Your task to perform on an android device: Do I have any events this weekend? Image 0: 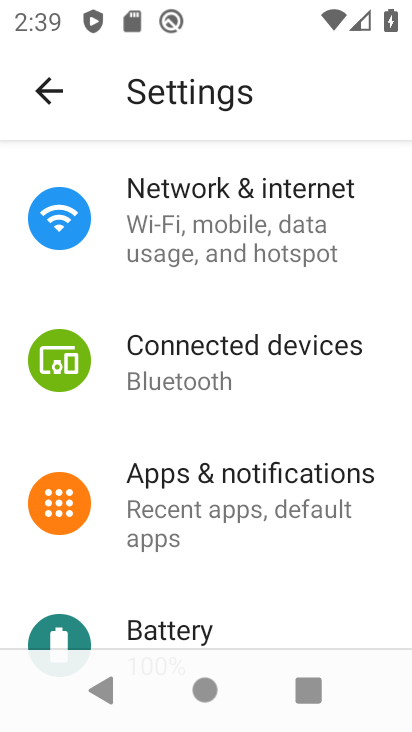
Step 0: press home button
Your task to perform on an android device: Do I have any events this weekend? Image 1: 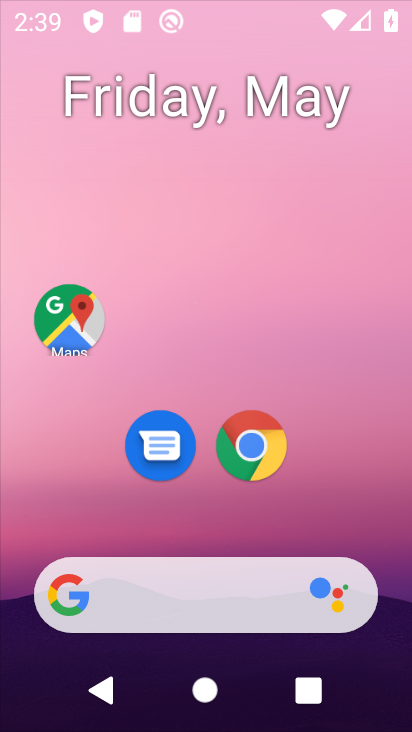
Step 1: drag from (230, 537) to (198, 225)
Your task to perform on an android device: Do I have any events this weekend? Image 2: 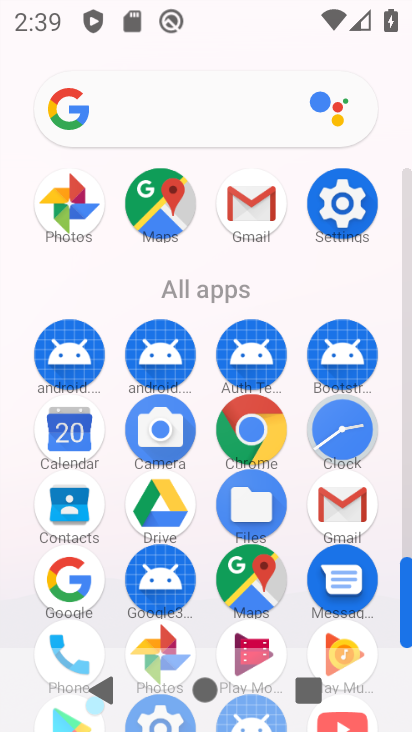
Step 2: drag from (184, 505) to (184, 136)
Your task to perform on an android device: Do I have any events this weekend? Image 3: 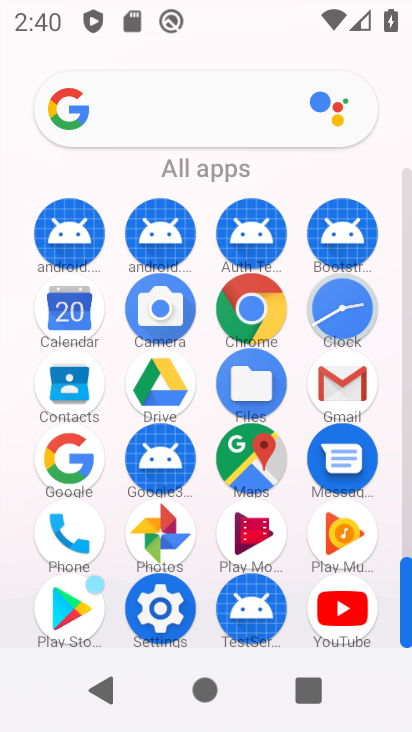
Step 3: drag from (212, 510) to (246, 155)
Your task to perform on an android device: Do I have any events this weekend? Image 4: 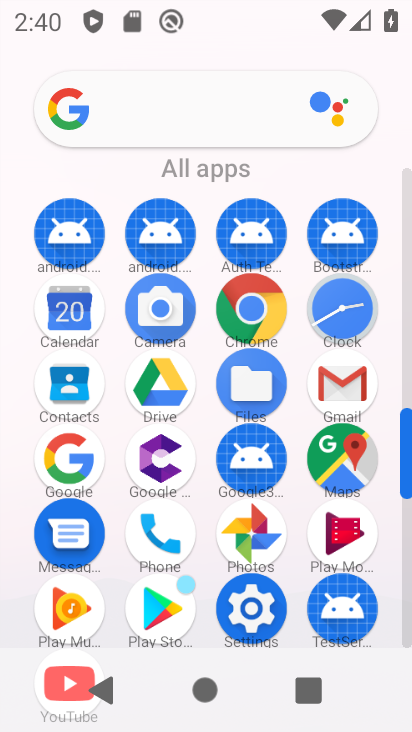
Step 4: click (62, 334)
Your task to perform on an android device: Do I have any events this weekend? Image 5: 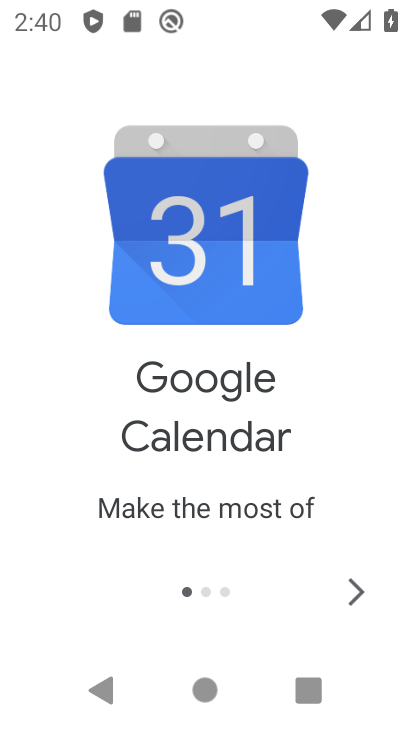
Step 5: click (362, 593)
Your task to perform on an android device: Do I have any events this weekend? Image 6: 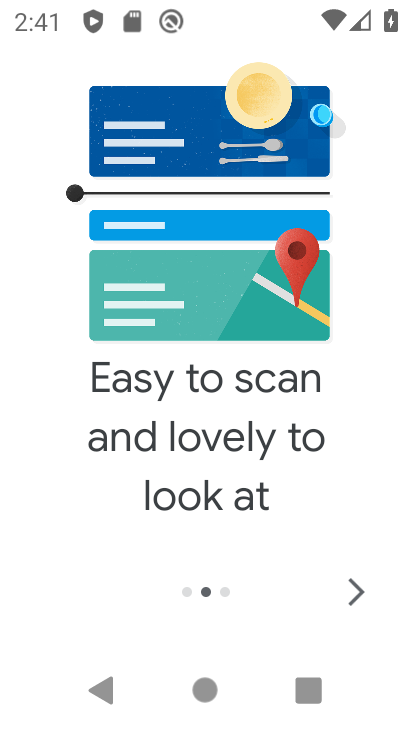
Step 6: click (362, 593)
Your task to perform on an android device: Do I have any events this weekend? Image 7: 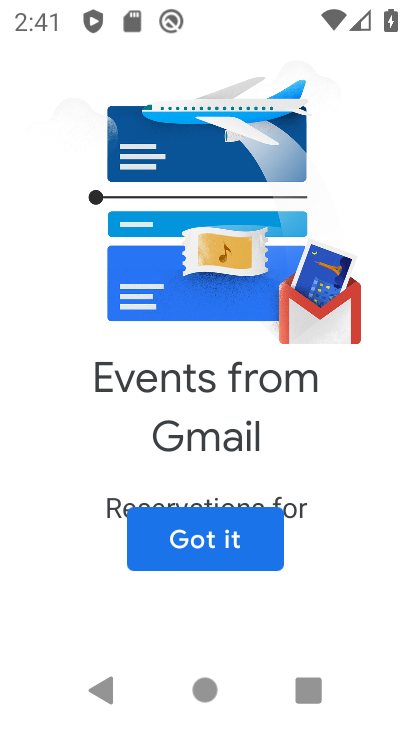
Step 7: click (260, 560)
Your task to perform on an android device: Do I have any events this weekend? Image 8: 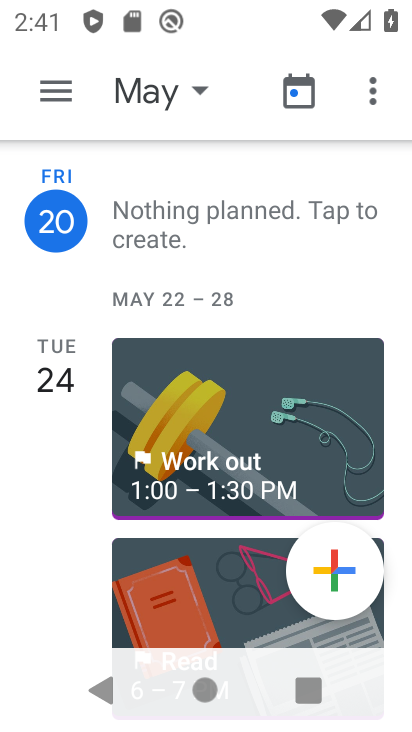
Step 8: click (172, 102)
Your task to perform on an android device: Do I have any events this weekend? Image 9: 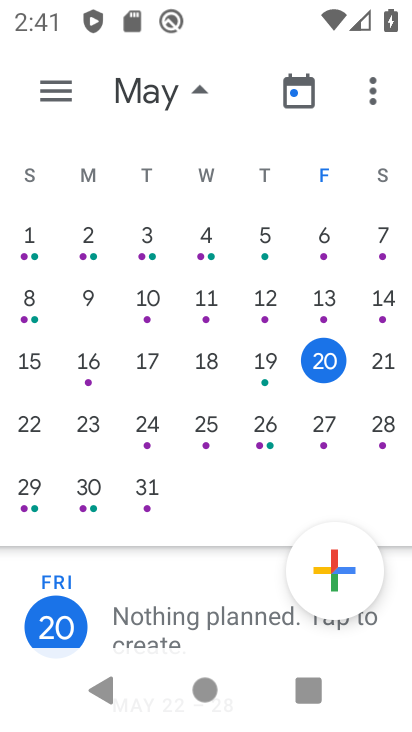
Step 9: click (393, 371)
Your task to perform on an android device: Do I have any events this weekend? Image 10: 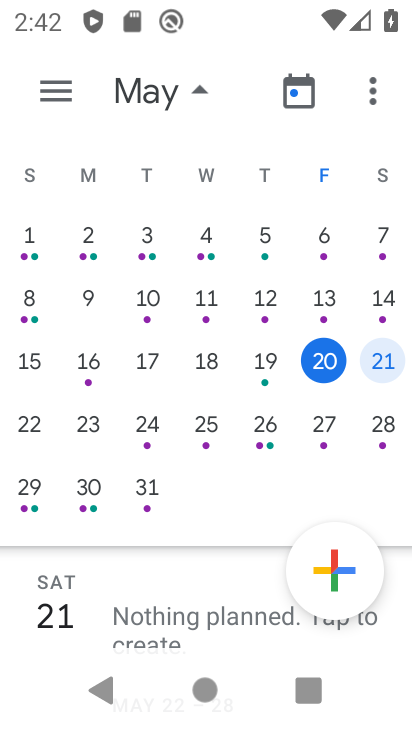
Step 10: task complete